Your task to perform on an android device: Go to internet settings Image 0: 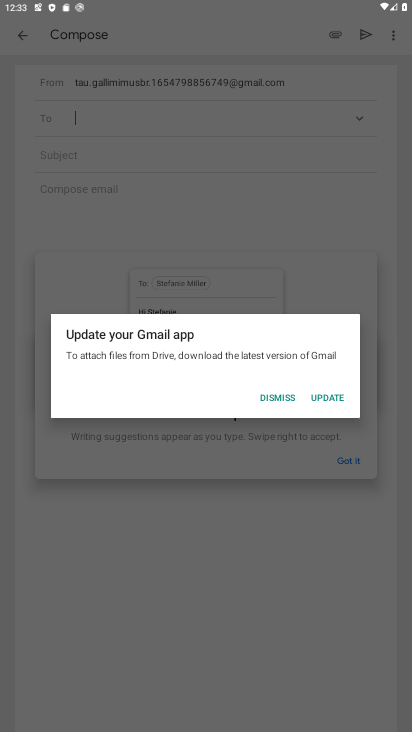
Step 0: press home button
Your task to perform on an android device: Go to internet settings Image 1: 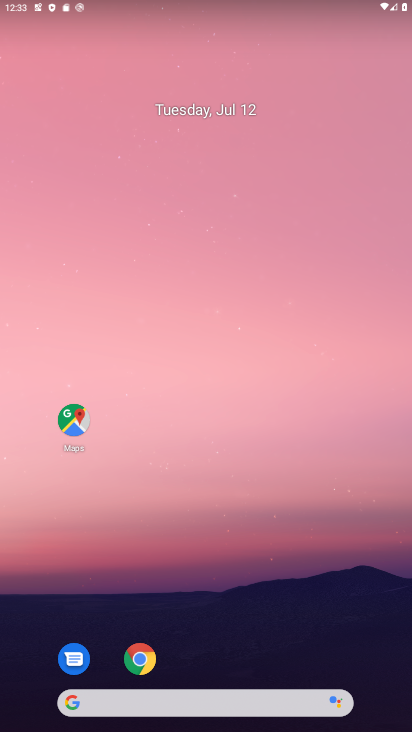
Step 1: drag from (239, 729) to (239, 672)
Your task to perform on an android device: Go to internet settings Image 2: 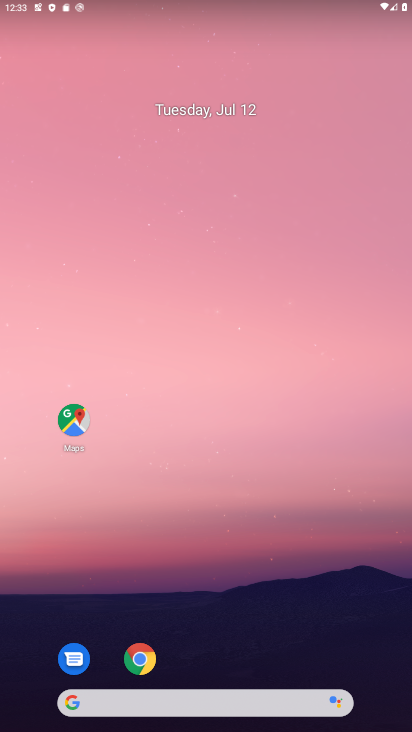
Step 2: drag from (239, 202) to (272, 13)
Your task to perform on an android device: Go to internet settings Image 3: 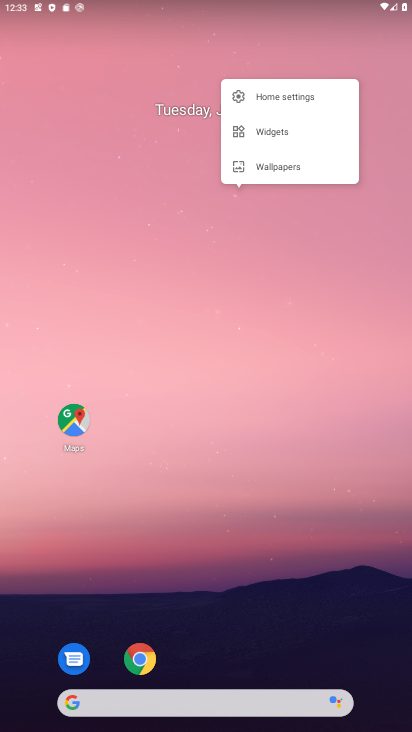
Step 3: click (354, 297)
Your task to perform on an android device: Go to internet settings Image 4: 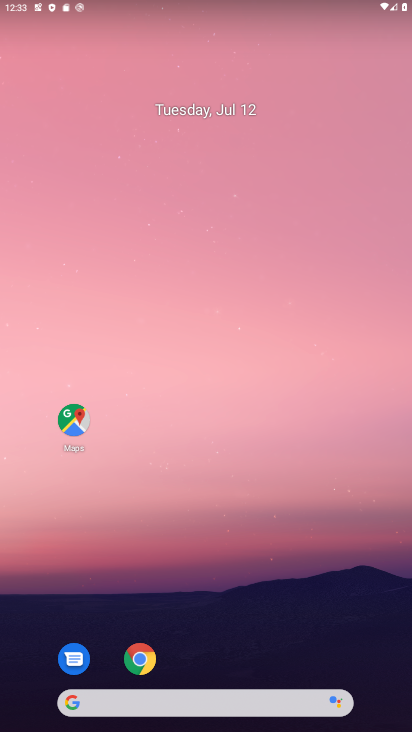
Step 4: drag from (235, 727) to (223, 604)
Your task to perform on an android device: Go to internet settings Image 5: 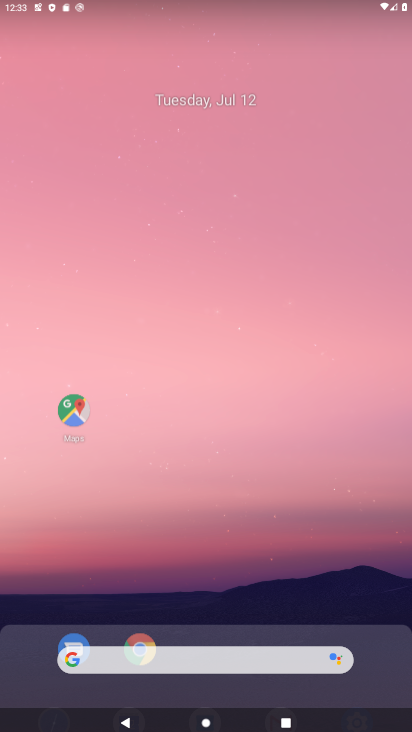
Step 5: click (217, 141)
Your task to perform on an android device: Go to internet settings Image 6: 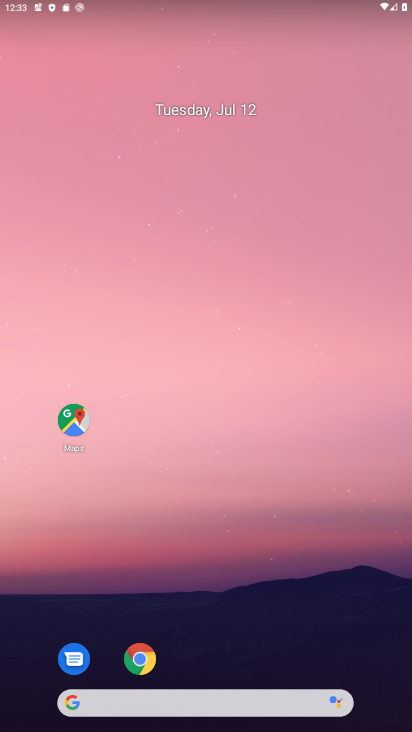
Step 6: click (222, 725)
Your task to perform on an android device: Go to internet settings Image 7: 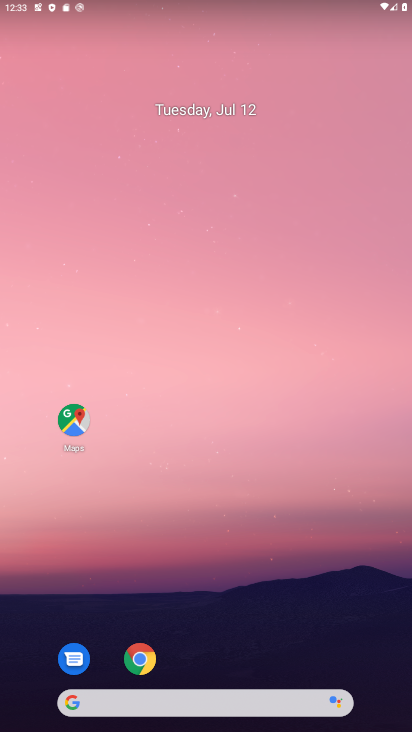
Step 7: drag from (223, 171) to (223, 89)
Your task to perform on an android device: Go to internet settings Image 8: 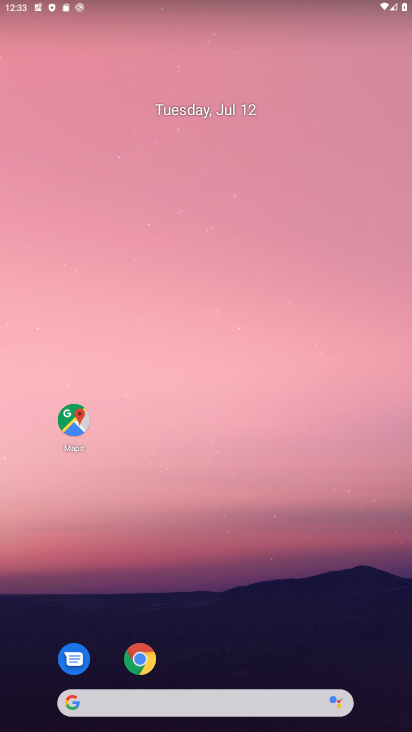
Step 8: drag from (216, 720) to (202, 31)
Your task to perform on an android device: Go to internet settings Image 9: 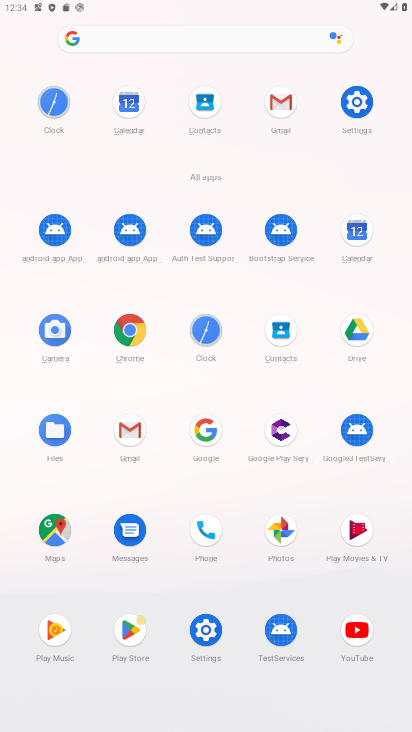
Step 9: click (359, 95)
Your task to perform on an android device: Go to internet settings Image 10: 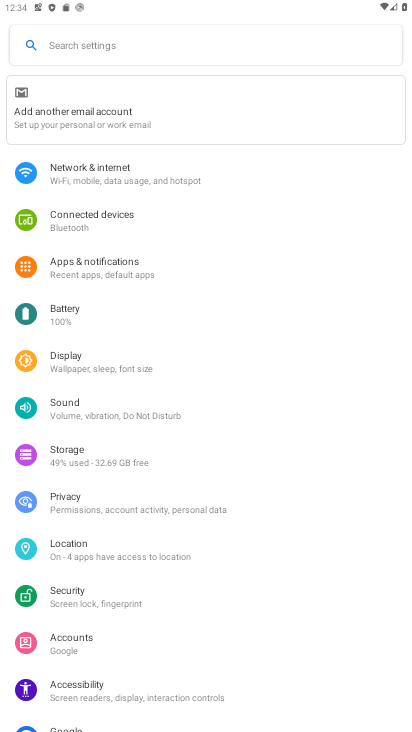
Step 10: click (94, 170)
Your task to perform on an android device: Go to internet settings Image 11: 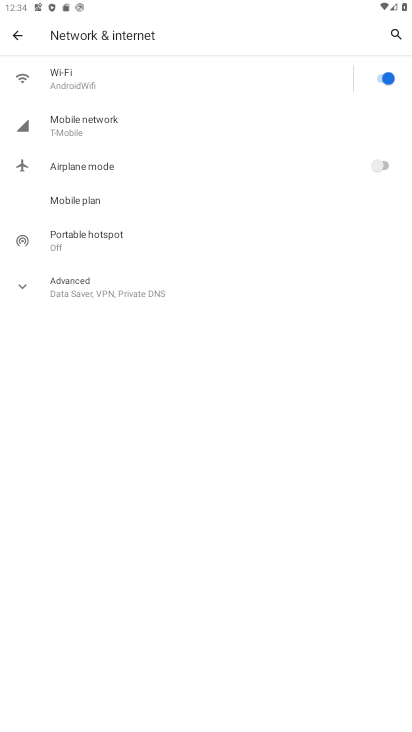
Step 11: task complete